Your task to perform on an android device: Go to Yahoo.com Image 0: 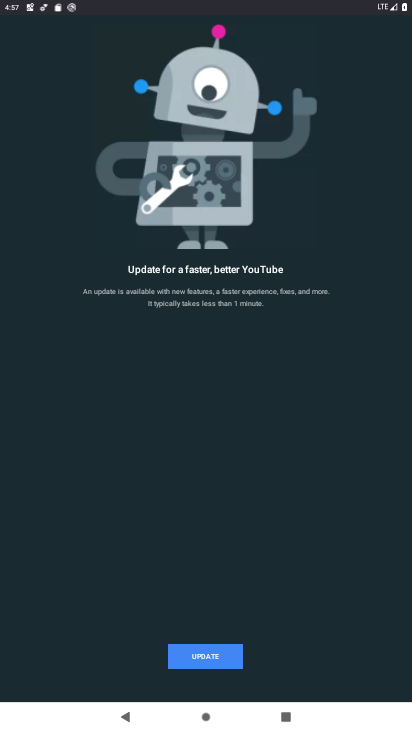
Step 0: press home button
Your task to perform on an android device: Go to Yahoo.com Image 1: 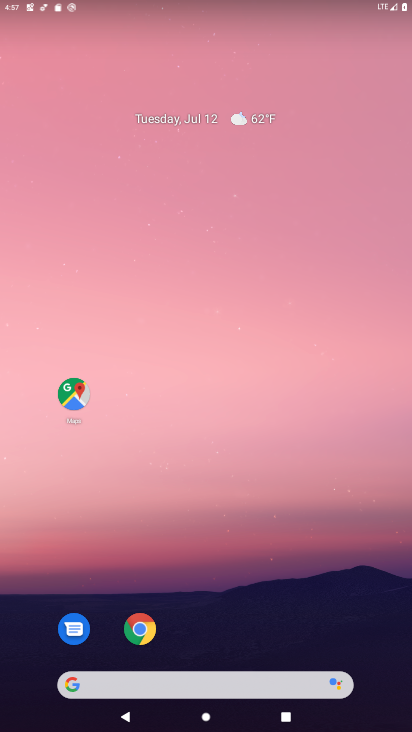
Step 1: drag from (348, 581) to (402, 176)
Your task to perform on an android device: Go to Yahoo.com Image 2: 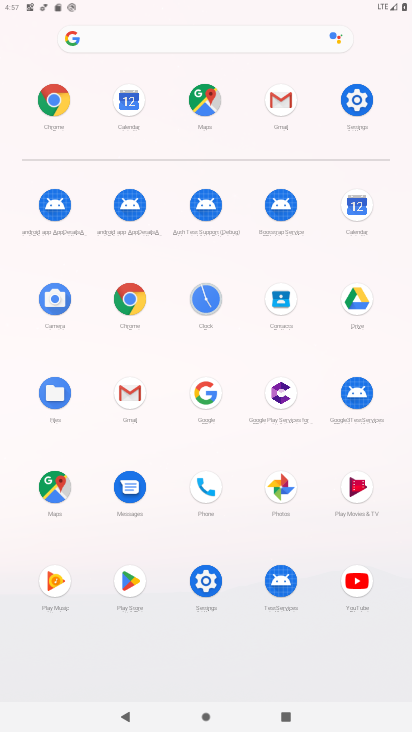
Step 2: click (120, 312)
Your task to perform on an android device: Go to Yahoo.com Image 3: 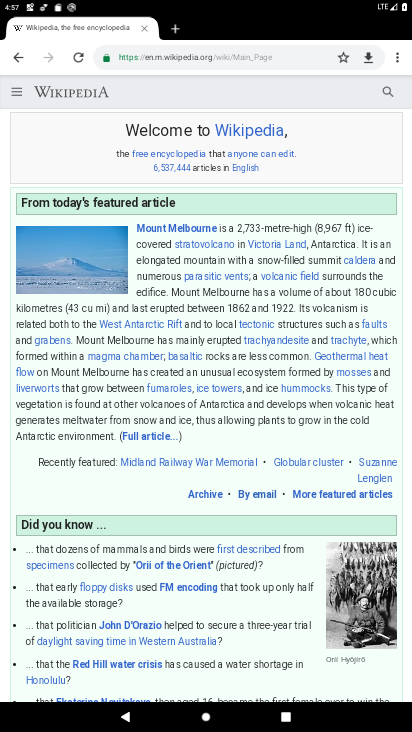
Step 3: click (14, 61)
Your task to perform on an android device: Go to Yahoo.com Image 4: 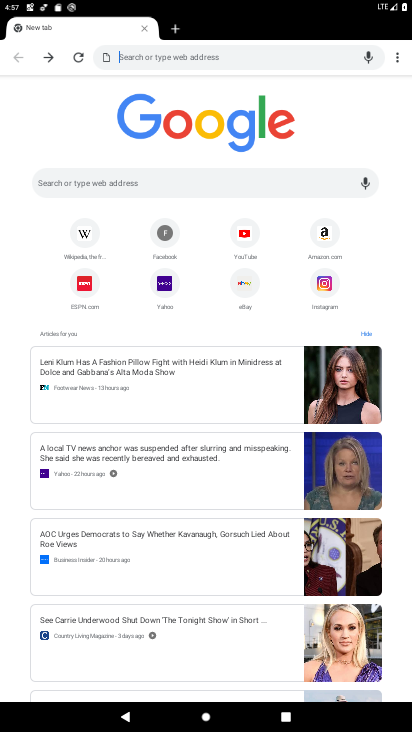
Step 4: click (153, 289)
Your task to perform on an android device: Go to Yahoo.com Image 5: 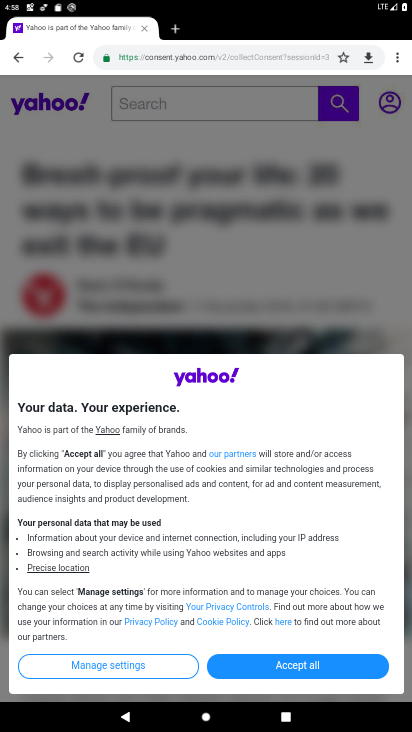
Step 5: task complete